Your task to perform on an android device: empty trash in google photos Image 0: 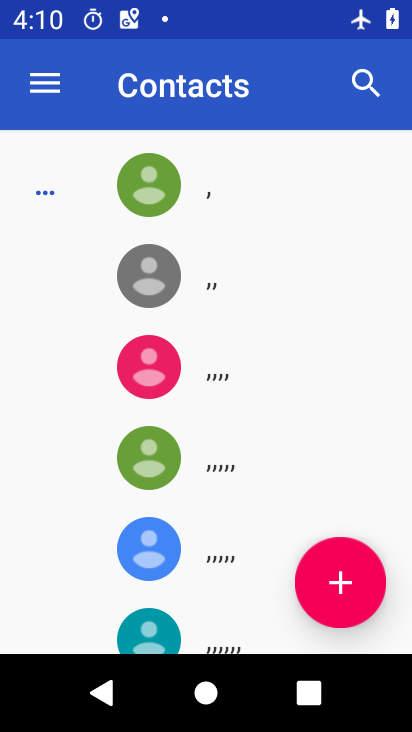
Step 0: drag from (189, 513) to (189, 62)
Your task to perform on an android device: empty trash in google photos Image 1: 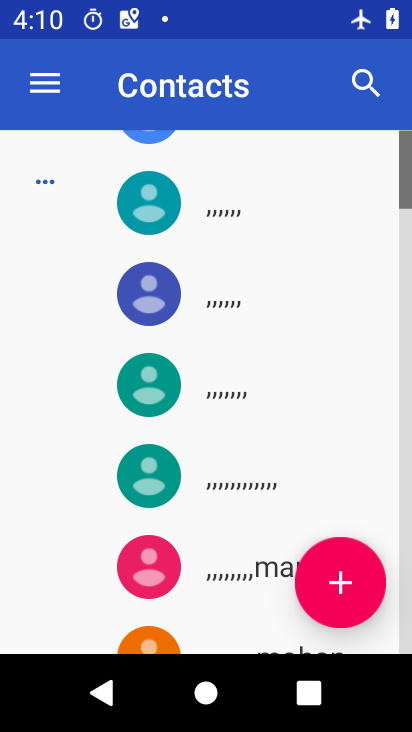
Step 1: press home button
Your task to perform on an android device: empty trash in google photos Image 2: 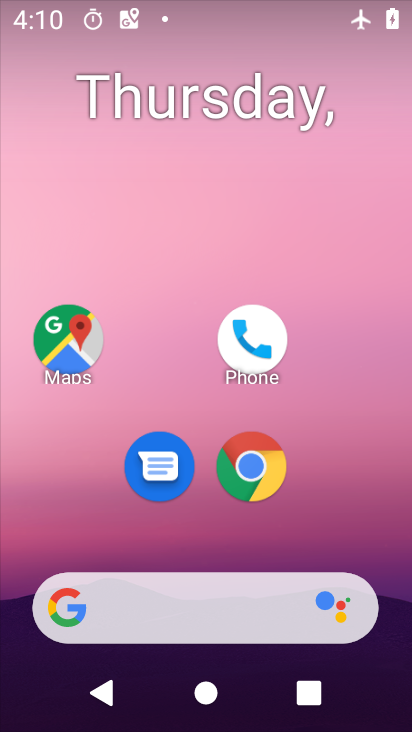
Step 2: drag from (225, 561) to (251, 235)
Your task to perform on an android device: empty trash in google photos Image 3: 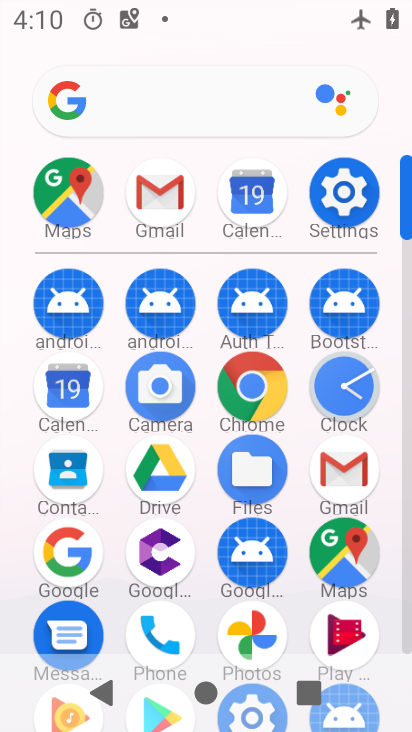
Step 3: drag from (201, 596) to (207, 295)
Your task to perform on an android device: empty trash in google photos Image 4: 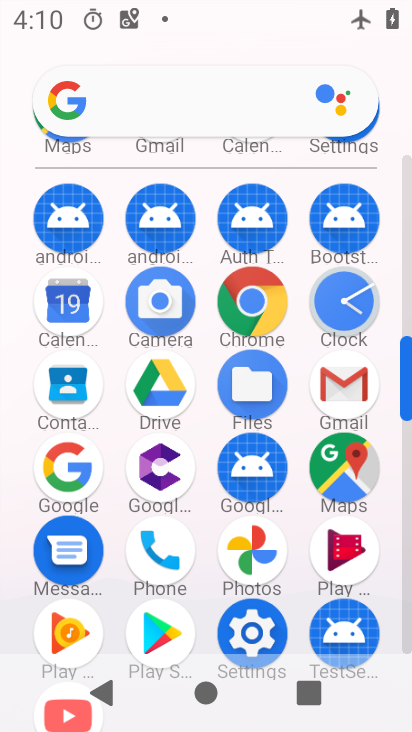
Step 4: click (245, 548)
Your task to perform on an android device: empty trash in google photos Image 5: 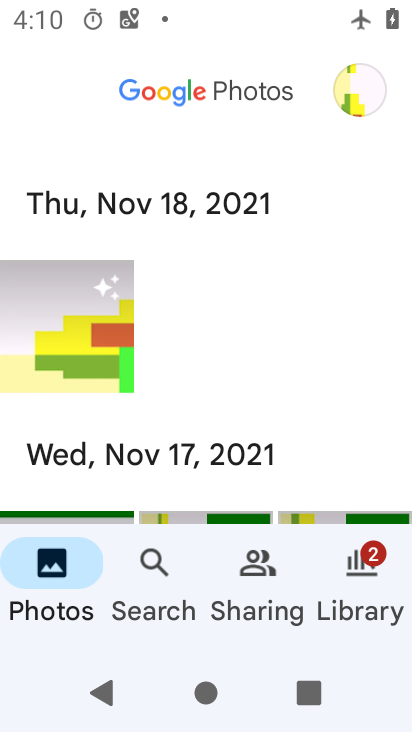
Step 5: drag from (197, 483) to (196, 196)
Your task to perform on an android device: empty trash in google photos Image 6: 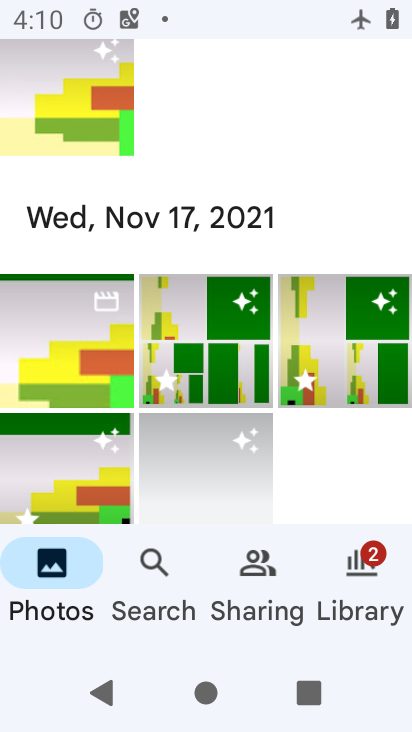
Step 6: drag from (238, 498) to (206, 243)
Your task to perform on an android device: empty trash in google photos Image 7: 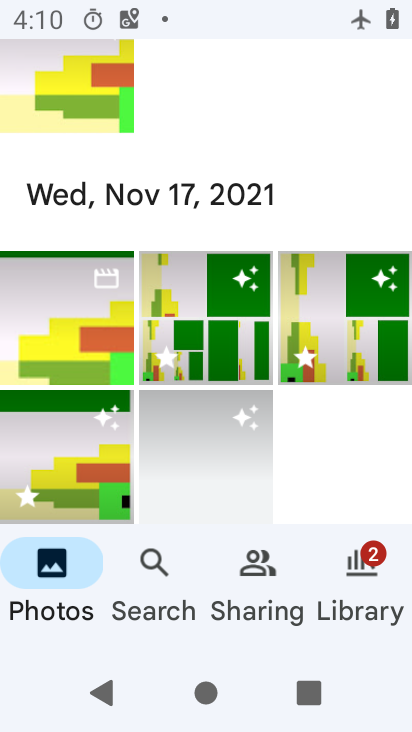
Step 7: click (367, 575)
Your task to perform on an android device: empty trash in google photos Image 8: 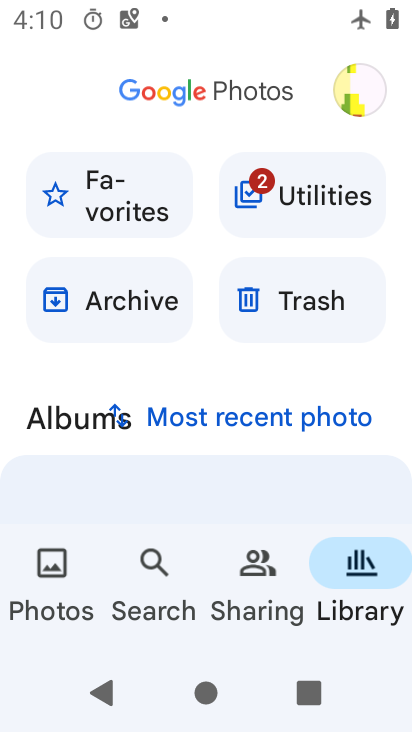
Step 8: click (288, 309)
Your task to perform on an android device: empty trash in google photos Image 9: 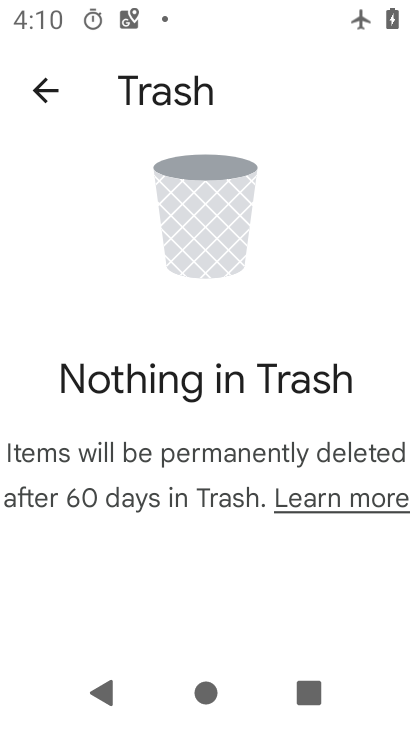
Step 9: task complete